Your task to perform on an android device: Go to Android settings Image 0: 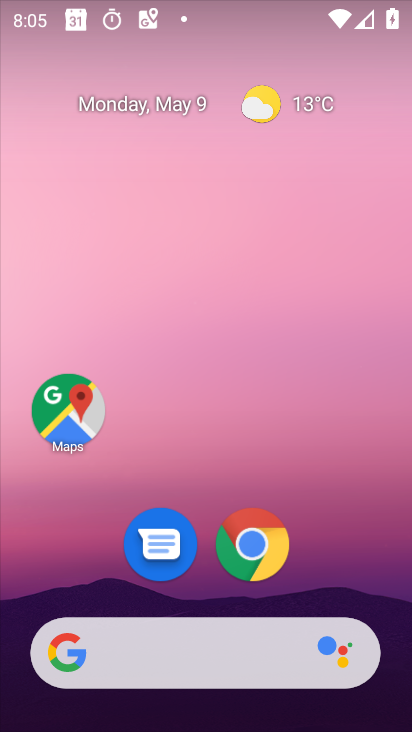
Step 0: drag from (355, 529) to (337, 120)
Your task to perform on an android device: Go to Android settings Image 1: 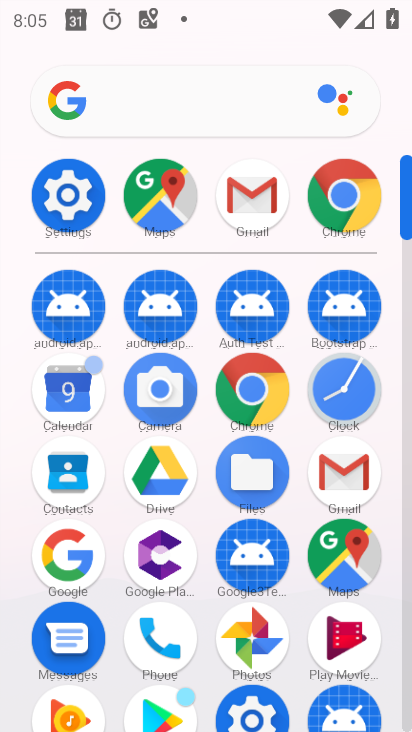
Step 1: click (75, 200)
Your task to perform on an android device: Go to Android settings Image 2: 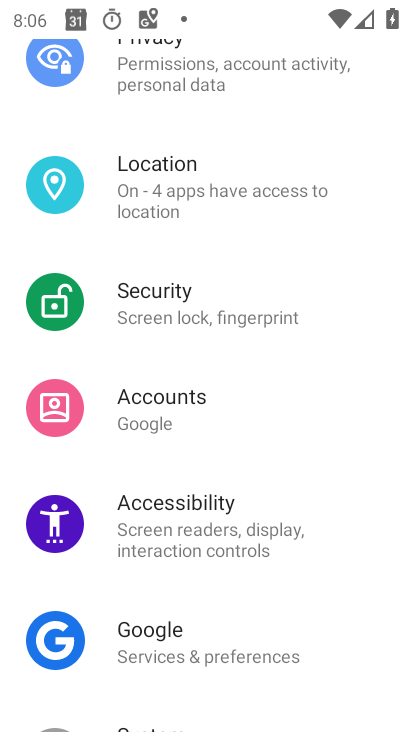
Step 2: task complete